Your task to perform on an android device: Open Youtube and go to the subscriptions tab Image 0: 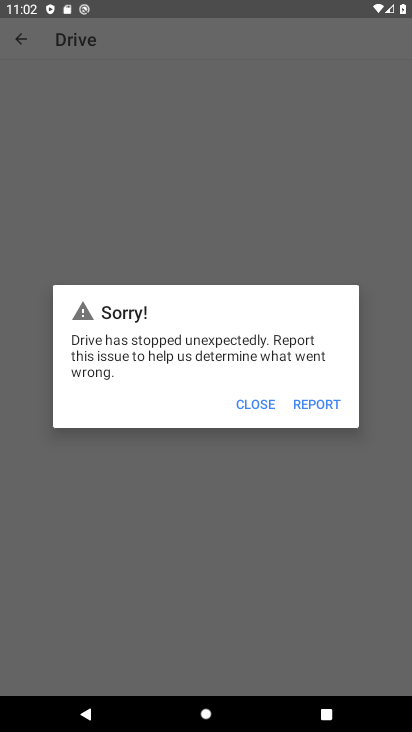
Step 0: press home button
Your task to perform on an android device: Open Youtube and go to the subscriptions tab Image 1: 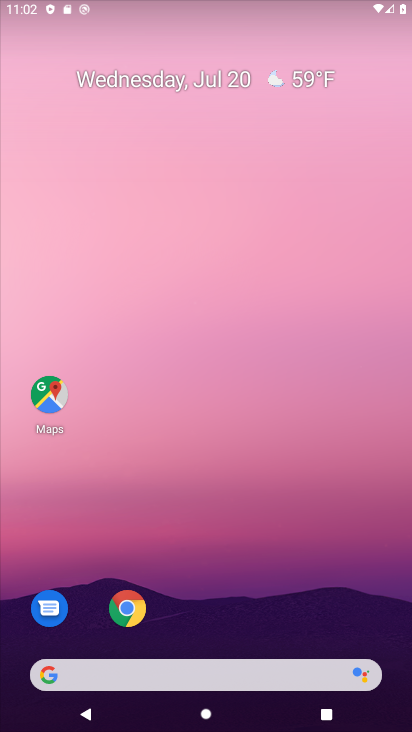
Step 1: drag from (245, 408) to (284, 8)
Your task to perform on an android device: Open Youtube and go to the subscriptions tab Image 2: 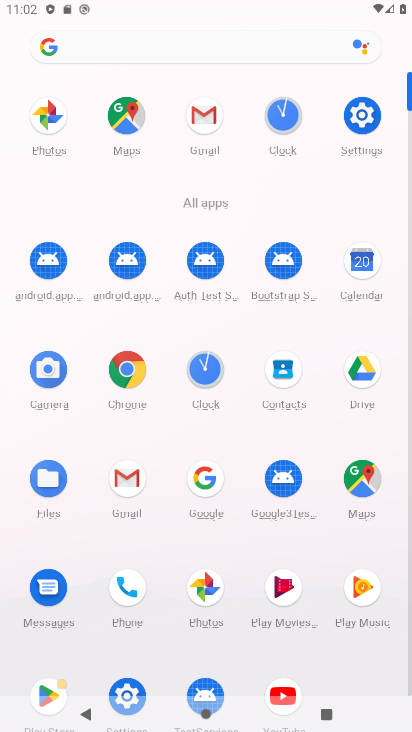
Step 2: drag from (346, 676) to (285, 339)
Your task to perform on an android device: Open Youtube and go to the subscriptions tab Image 3: 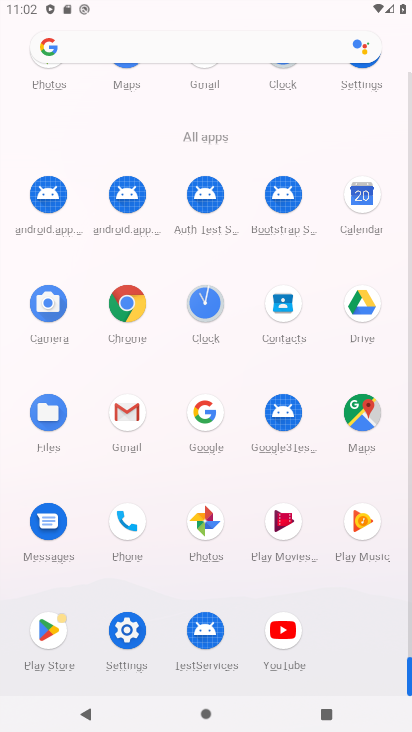
Step 3: click (285, 632)
Your task to perform on an android device: Open Youtube and go to the subscriptions tab Image 4: 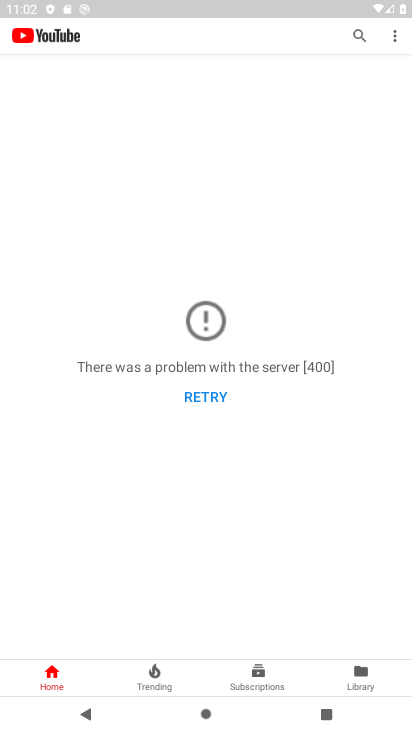
Step 4: click (250, 685)
Your task to perform on an android device: Open Youtube and go to the subscriptions tab Image 5: 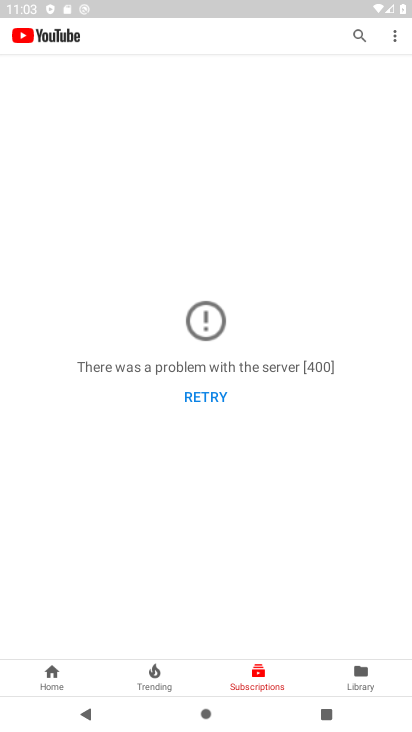
Step 5: task complete